Your task to perform on an android device: set the timer Image 0: 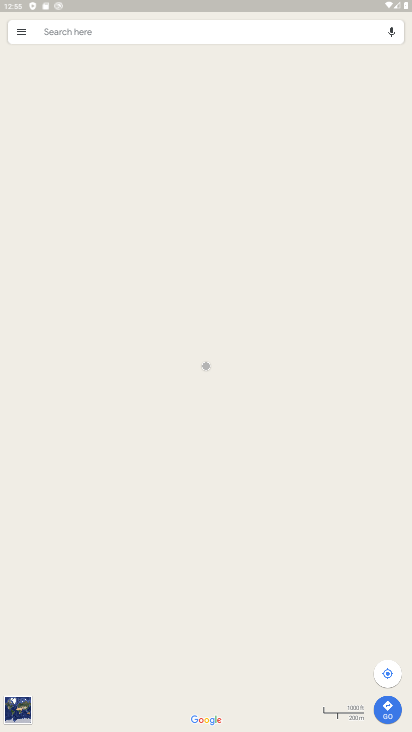
Step 0: press home button
Your task to perform on an android device: set the timer Image 1: 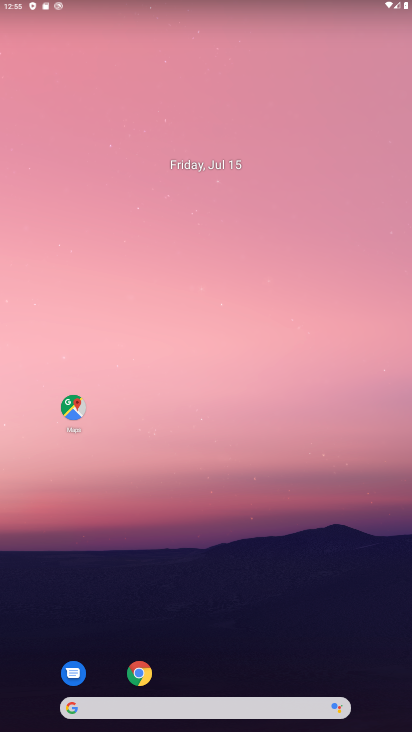
Step 1: drag from (291, 647) to (291, 108)
Your task to perform on an android device: set the timer Image 2: 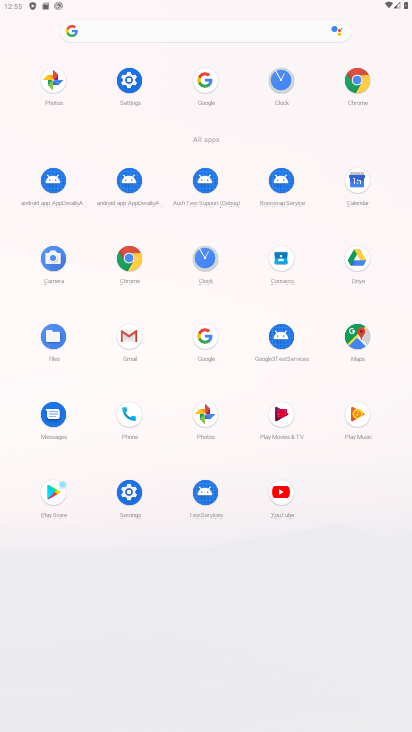
Step 2: click (204, 259)
Your task to perform on an android device: set the timer Image 3: 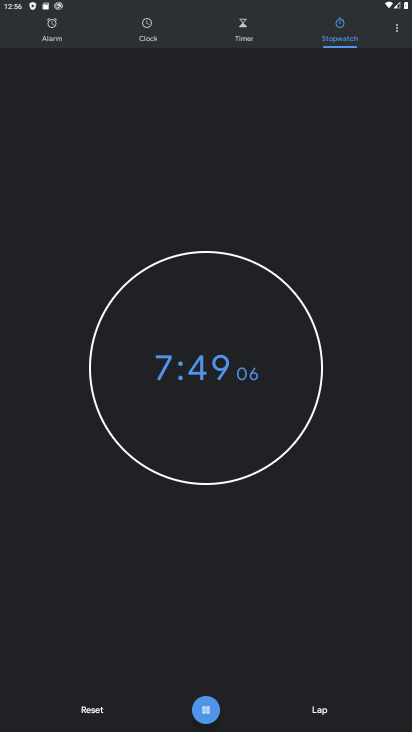
Step 3: click (237, 29)
Your task to perform on an android device: set the timer Image 4: 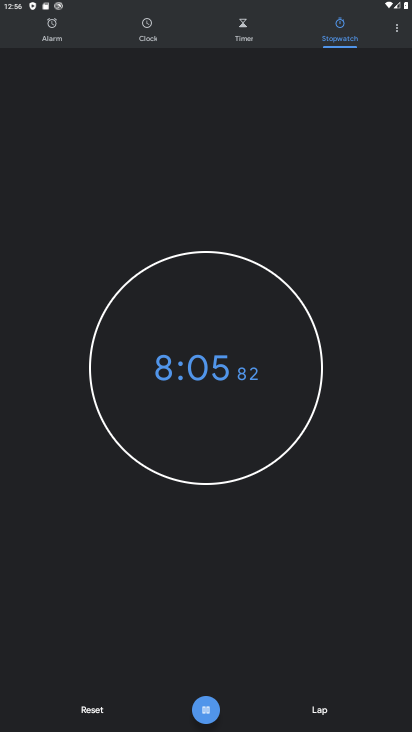
Step 4: task complete